Your task to perform on an android device: turn on airplane mode Image 0: 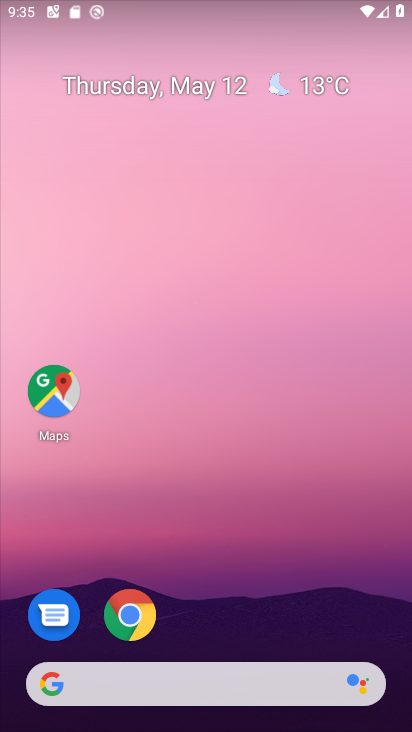
Step 0: drag from (294, 525) to (148, 31)
Your task to perform on an android device: turn on airplane mode Image 1: 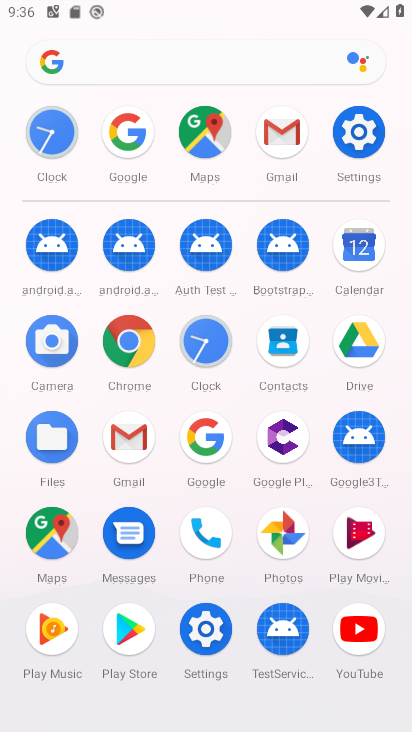
Step 1: click (357, 130)
Your task to perform on an android device: turn on airplane mode Image 2: 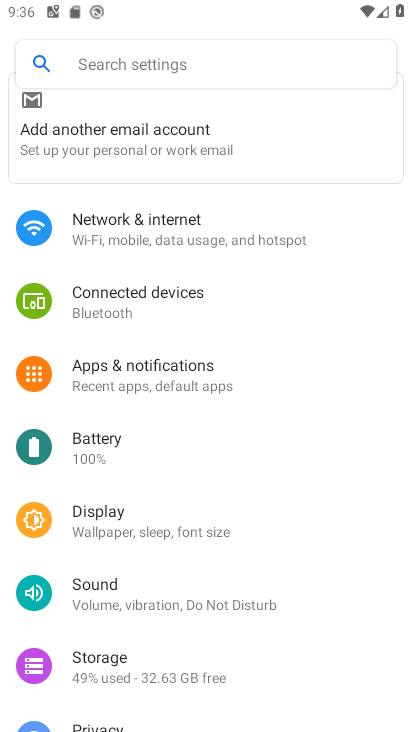
Step 2: click (116, 215)
Your task to perform on an android device: turn on airplane mode Image 3: 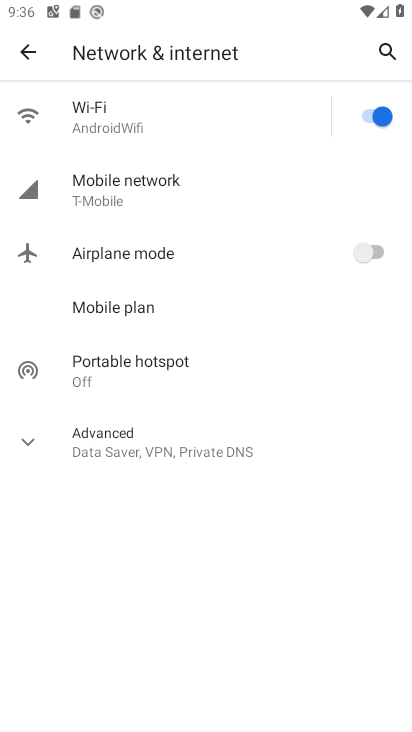
Step 3: click (367, 256)
Your task to perform on an android device: turn on airplane mode Image 4: 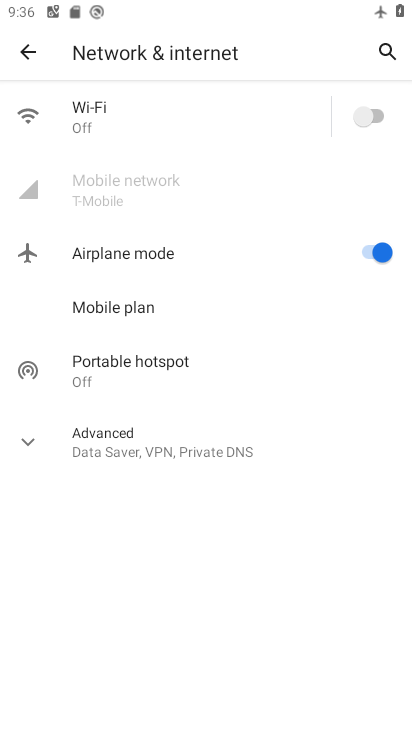
Step 4: task complete